Your task to perform on an android device: Open Android settings Image 0: 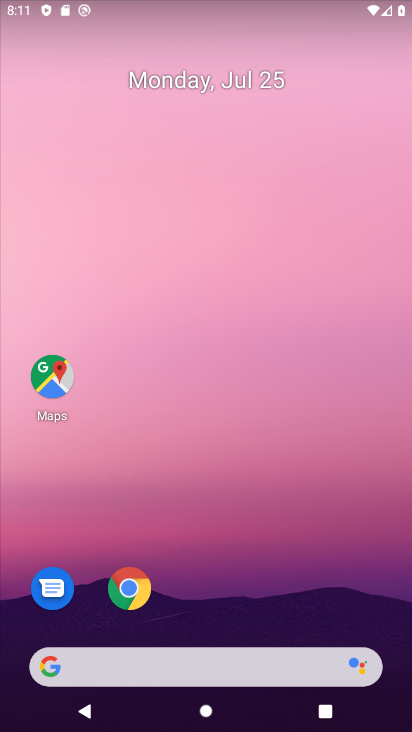
Step 0: press home button
Your task to perform on an android device: Open Android settings Image 1: 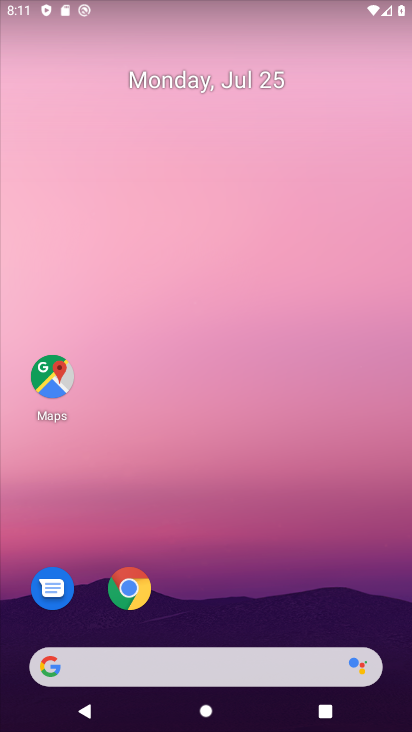
Step 1: drag from (355, 556) to (367, 72)
Your task to perform on an android device: Open Android settings Image 2: 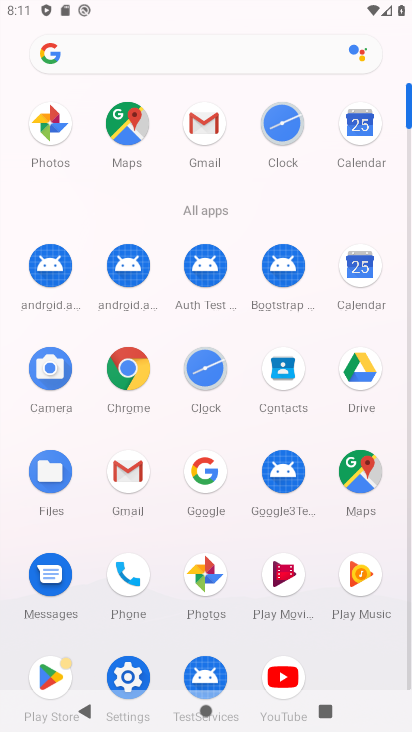
Step 2: click (134, 670)
Your task to perform on an android device: Open Android settings Image 3: 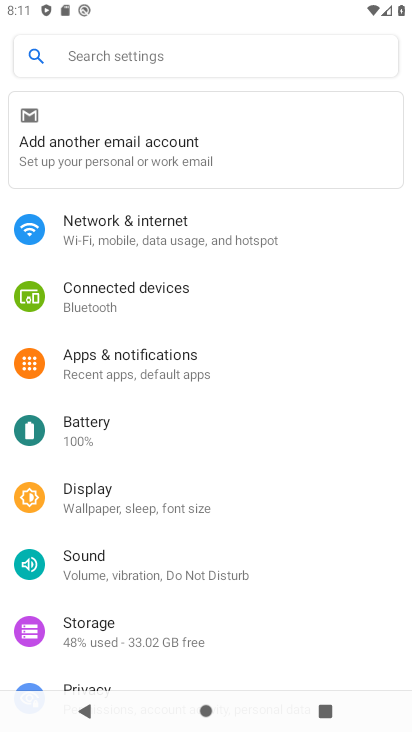
Step 3: drag from (351, 540) to (351, 427)
Your task to perform on an android device: Open Android settings Image 4: 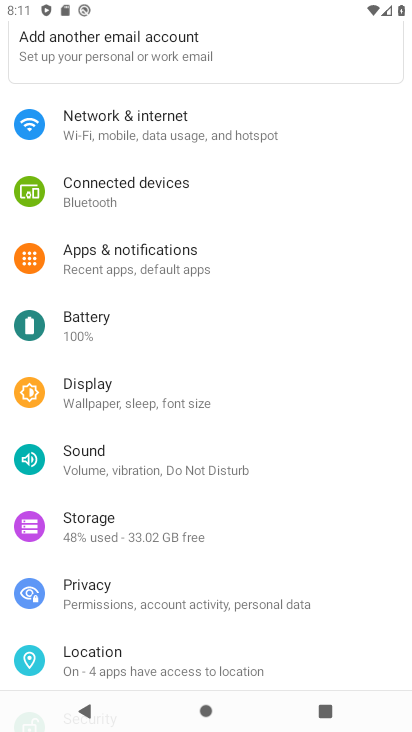
Step 4: drag from (361, 587) to (351, 457)
Your task to perform on an android device: Open Android settings Image 5: 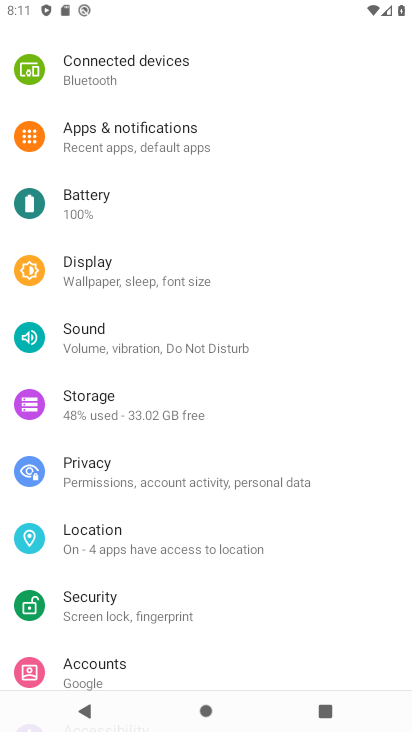
Step 5: drag from (352, 594) to (351, 437)
Your task to perform on an android device: Open Android settings Image 6: 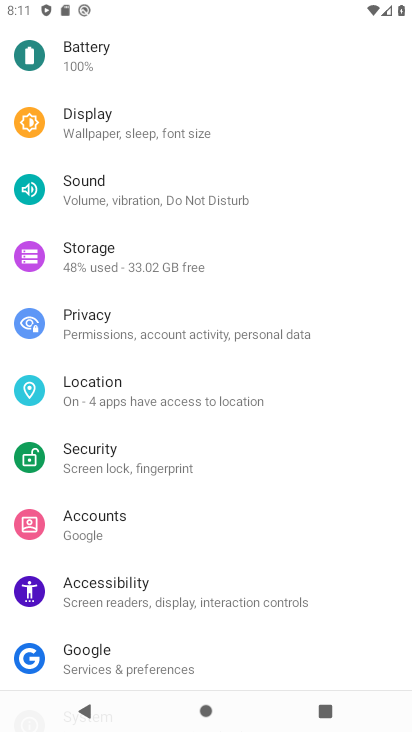
Step 6: drag from (350, 587) to (345, 453)
Your task to perform on an android device: Open Android settings Image 7: 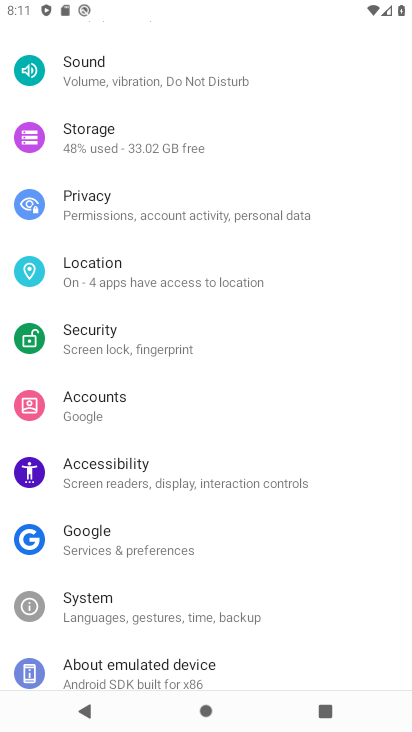
Step 7: click (303, 616)
Your task to perform on an android device: Open Android settings Image 8: 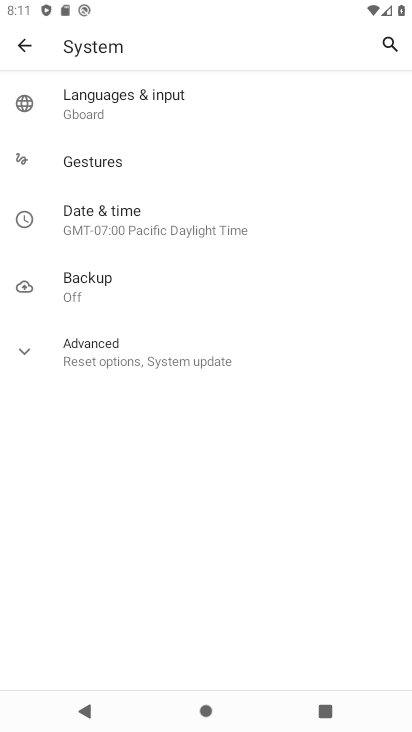
Step 8: click (280, 354)
Your task to perform on an android device: Open Android settings Image 9: 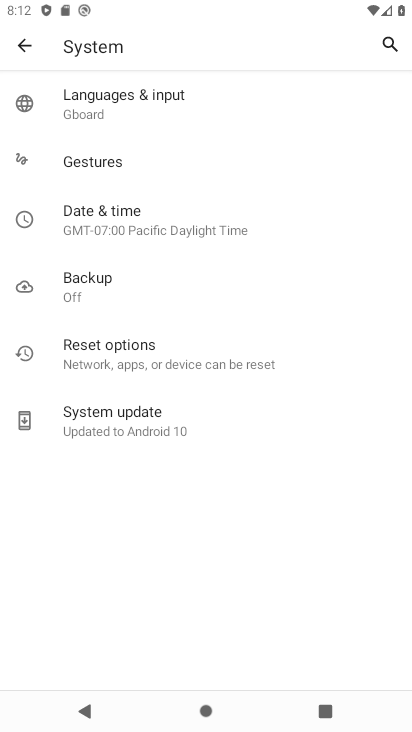
Step 9: task complete